Your task to perform on an android device: refresh tabs in the chrome app Image 0: 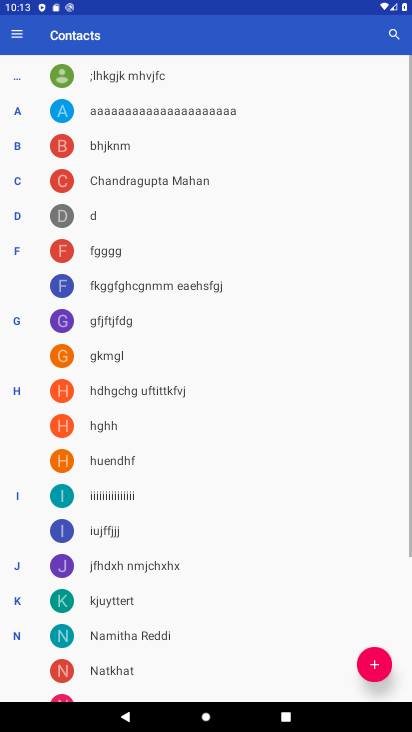
Step 0: drag from (347, 659) to (110, 65)
Your task to perform on an android device: refresh tabs in the chrome app Image 1: 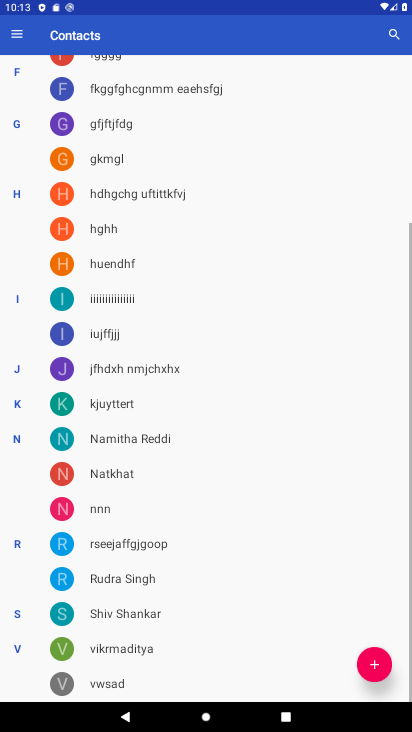
Step 1: press home button
Your task to perform on an android device: refresh tabs in the chrome app Image 2: 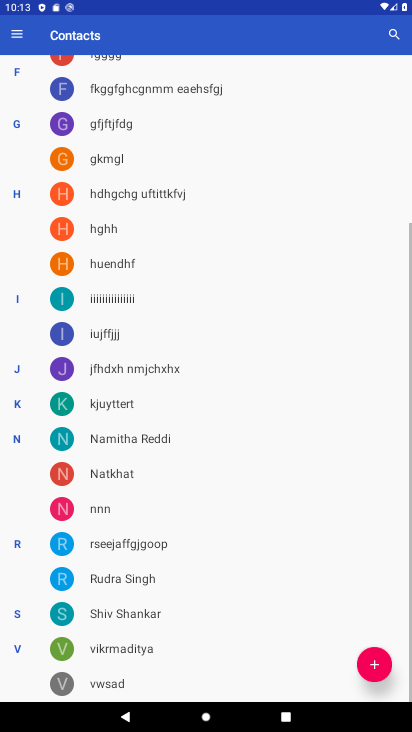
Step 2: drag from (342, 641) to (102, 35)
Your task to perform on an android device: refresh tabs in the chrome app Image 3: 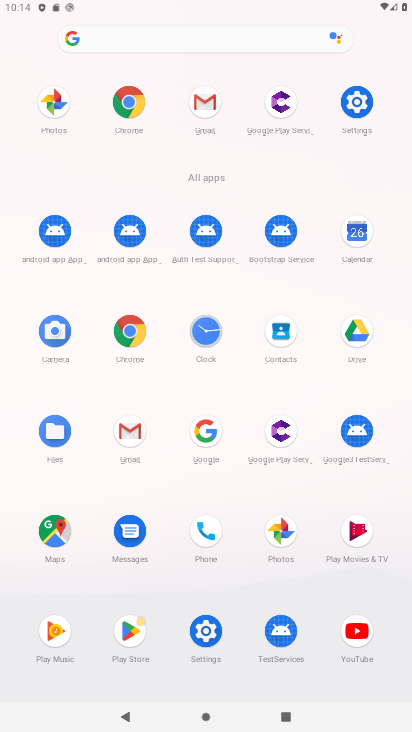
Step 3: click (129, 351)
Your task to perform on an android device: refresh tabs in the chrome app Image 4: 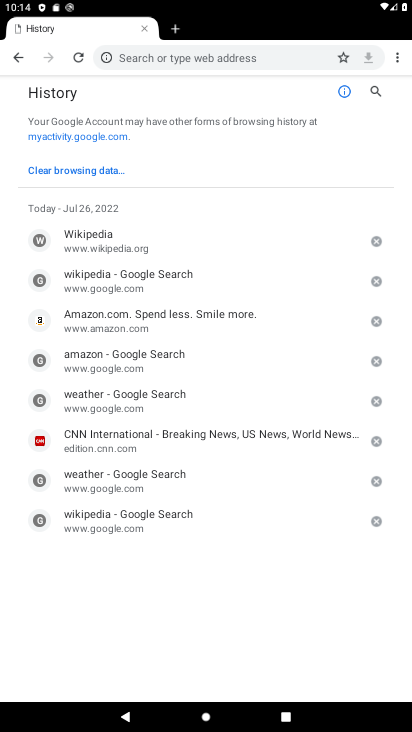
Step 4: press back button
Your task to perform on an android device: refresh tabs in the chrome app Image 5: 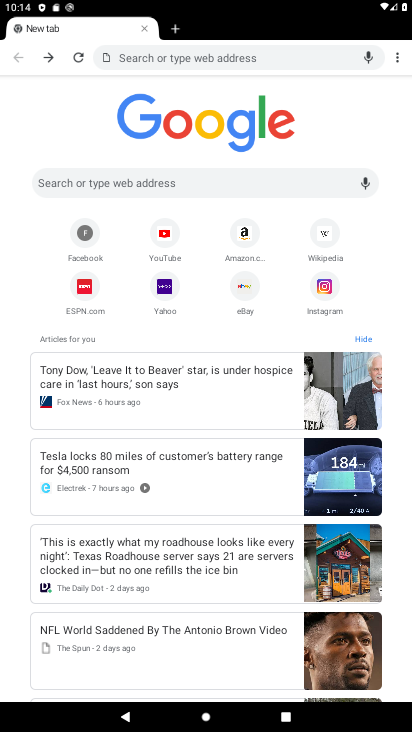
Step 5: click (397, 49)
Your task to perform on an android device: refresh tabs in the chrome app Image 6: 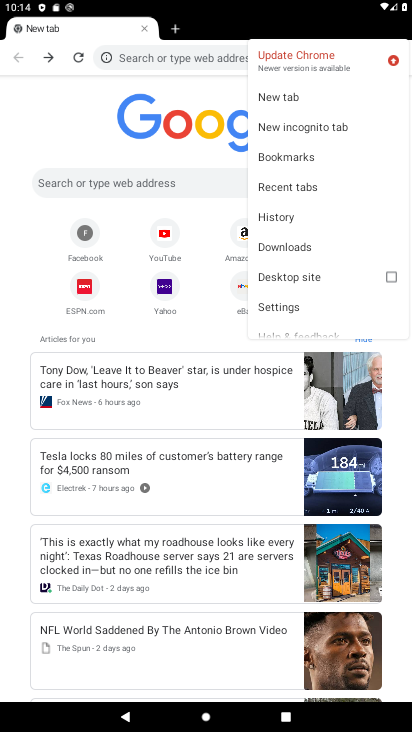
Step 6: click (76, 58)
Your task to perform on an android device: refresh tabs in the chrome app Image 7: 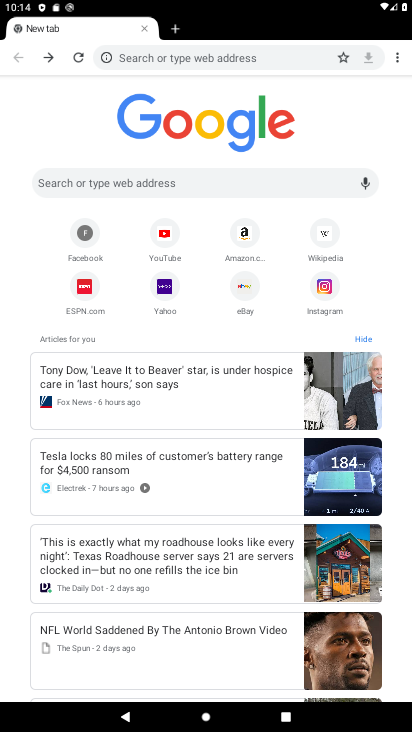
Step 7: click (76, 58)
Your task to perform on an android device: refresh tabs in the chrome app Image 8: 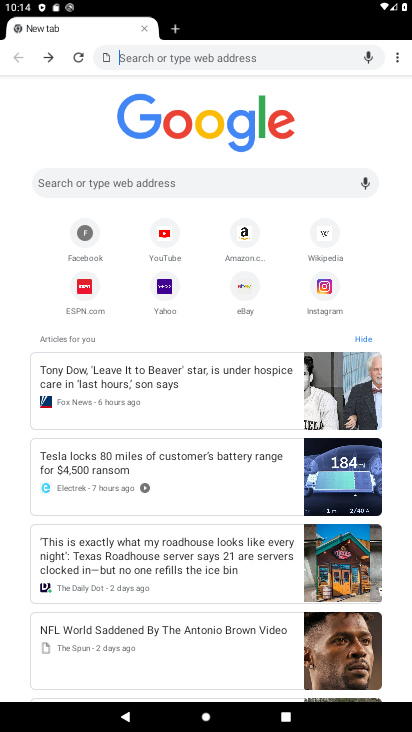
Step 8: task complete